Your task to perform on an android device: Go to Yahoo.com Image 0: 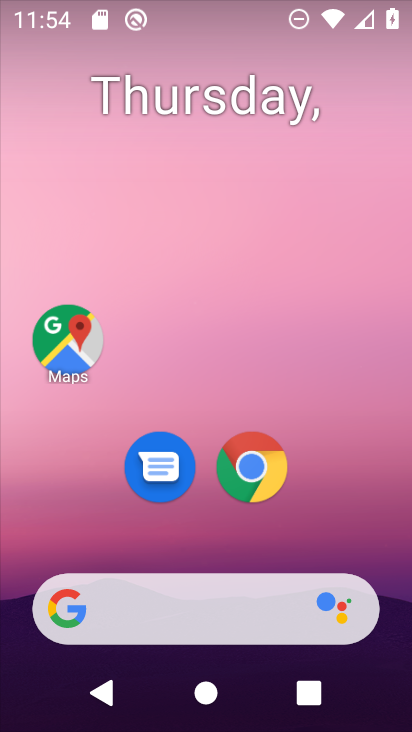
Step 0: click (253, 464)
Your task to perform on an android device: Go to Yahoo.com Image 1: 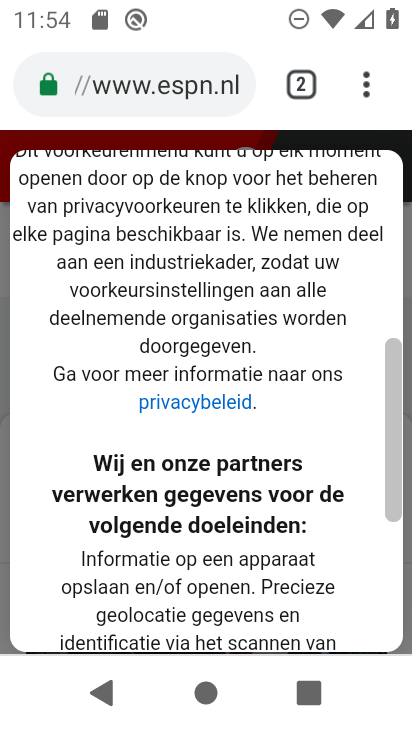
Step 1: click (115, 90)
Your task to perform on an android device: Go to Yahoo.com Image 2: 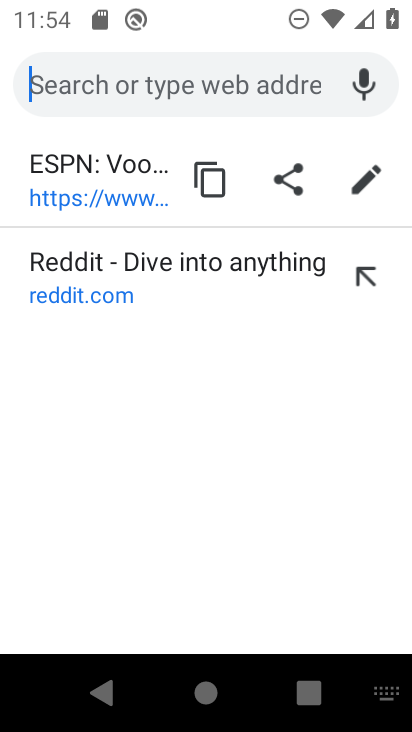
Step 2: type "yahoo.com"
Your task to perform on an android device: Go to Yahoo.com Image 3: 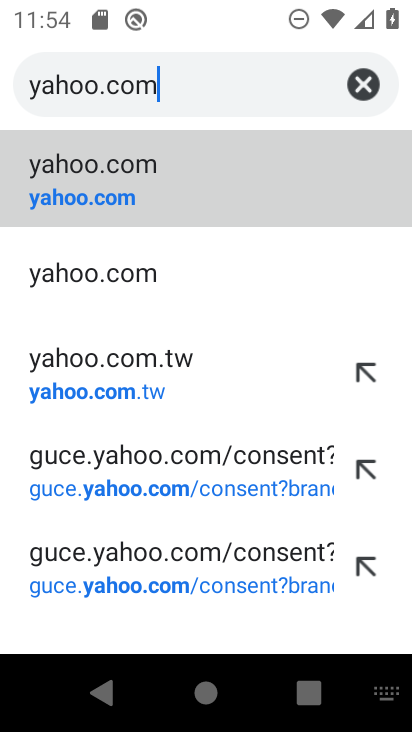
Step 3: click (56, 200)
Your task to perform on an android device: Go to Yahoo.com Image 4: 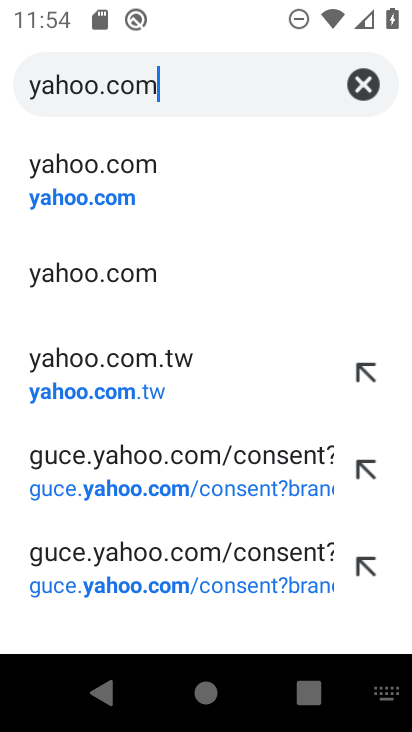
Step 4: click (86, 200)
Your task to perform on an android device: Go to Yahoo.com Image 5: 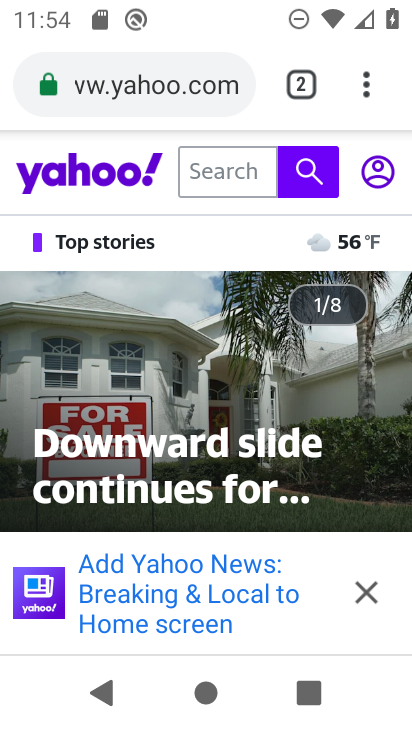
Step 5: task complete